Your task to perform on an android device: star an email in the gmail app Image 0: 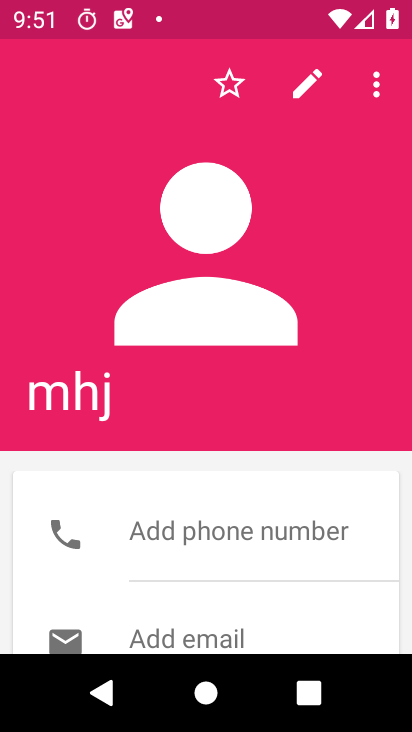
Step 0: press home button
Your task to perform on an android device: star an email in the gmail app Image 1: 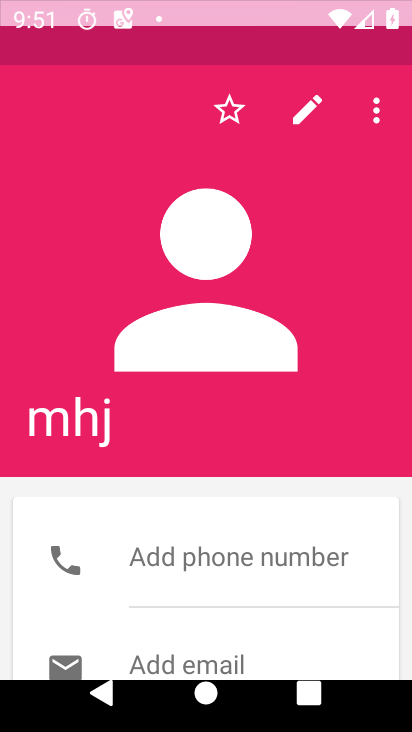
Step 1: drag from (112, 515) to (177, 255)
Your task to perform on an android device: star an email in the gmail app Image 2: 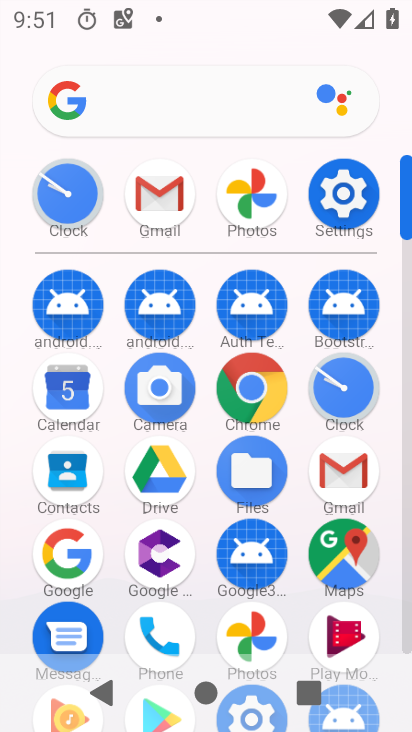
Step 2: click (336, 472)
Your task to perform on an android device: star an email in the gmail app Image 3: 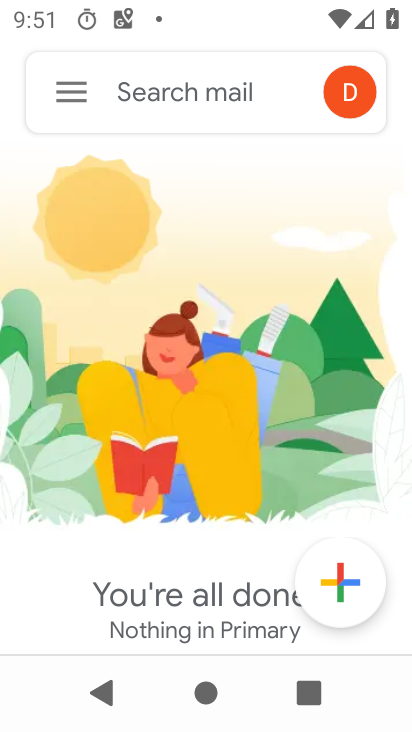
Step 3: click (71, 99)
Your task to perform on an android device: star an email in the gmail app Image 4: 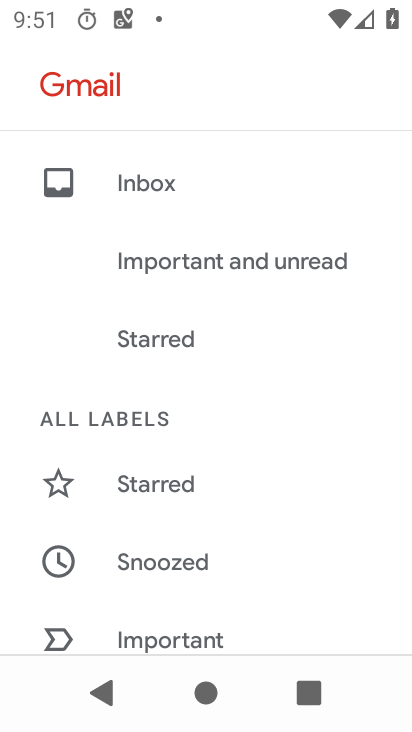
Step 4: click (133, 491)
Your task to perform on an android device: star an email in the gmail app Image 5: 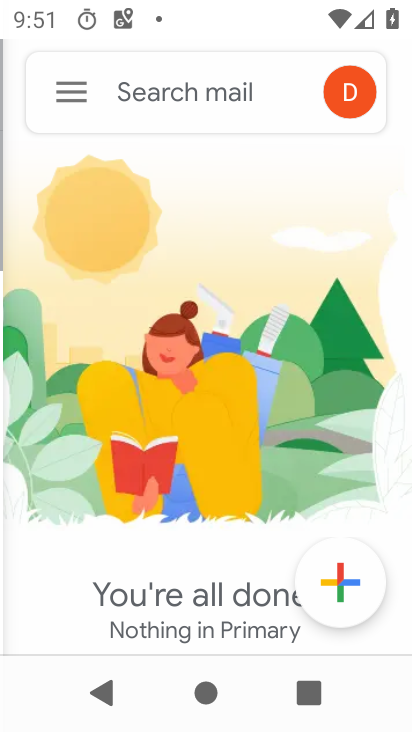
Step 5: task complete